Your task to perform on an android device: Check the news Image 0: 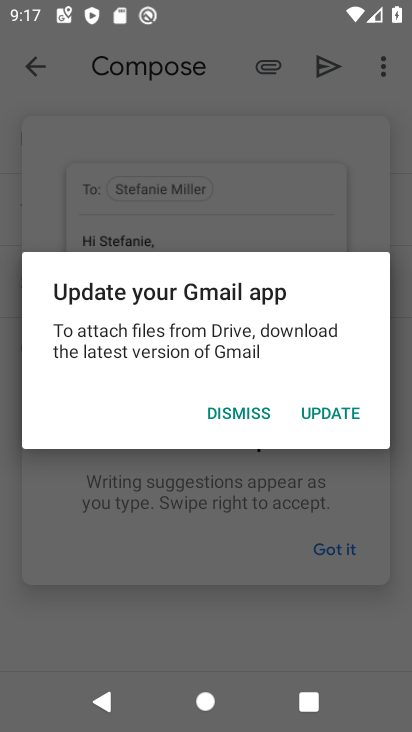
Step 0: press home button
Your task to perform on an android device: Check the news Image 1: 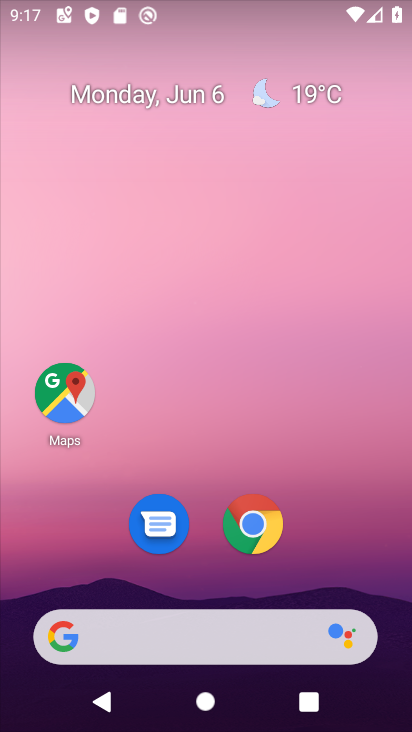
Step 1: click (192, 628)
Your task to perform on an android device: Check the news Image 2: 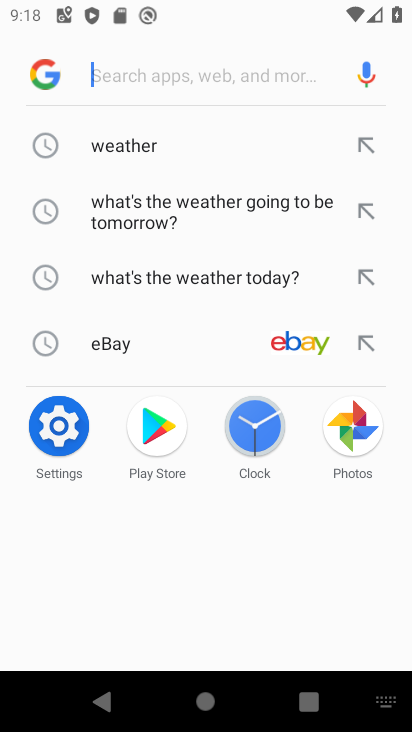
Step 2: type "news"
Your task to perform on an android device: Check the news Image 3: 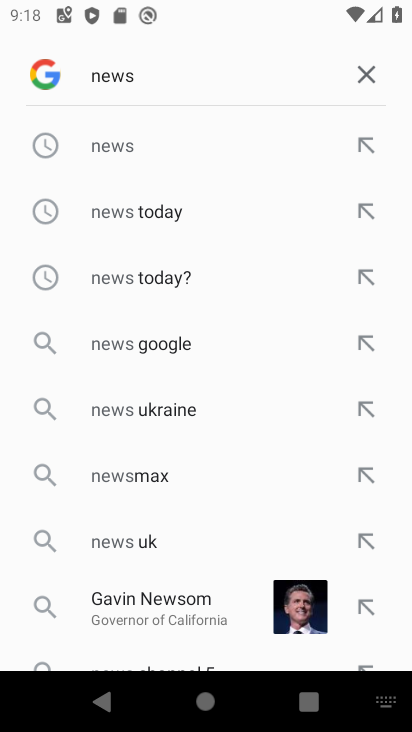
Step 3: click (115, 148)
Your task to perform on an android device: Check the news Image 4: 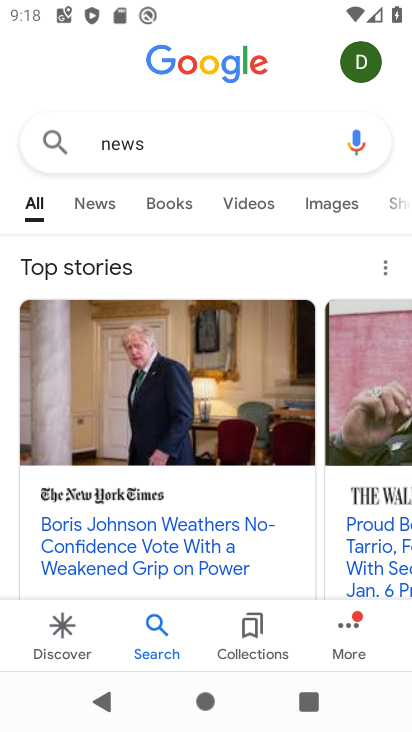
Step 4: click (102, 200)
Your task to perform on an android device: Check the news Image 5: 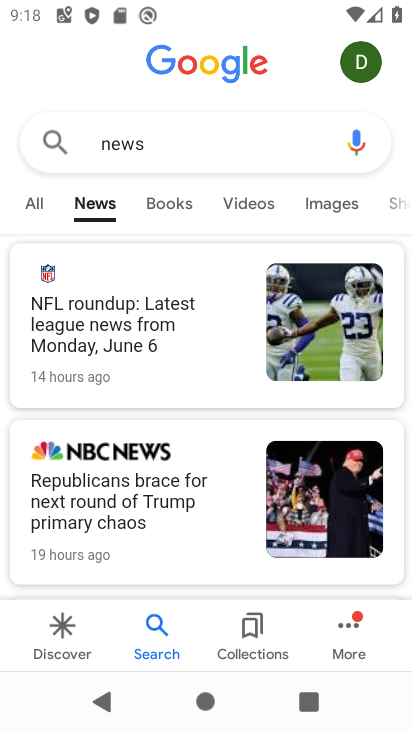
Step 5: task complete